Your task to perform on an android device: clear history in the chrome app Image 0: 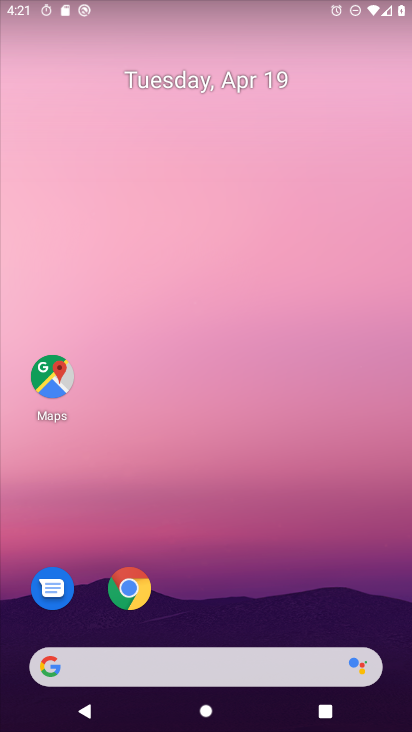
Step 0: click (141, 592)
Your task to perform on an android device: clear history in the chrome app Image 1: 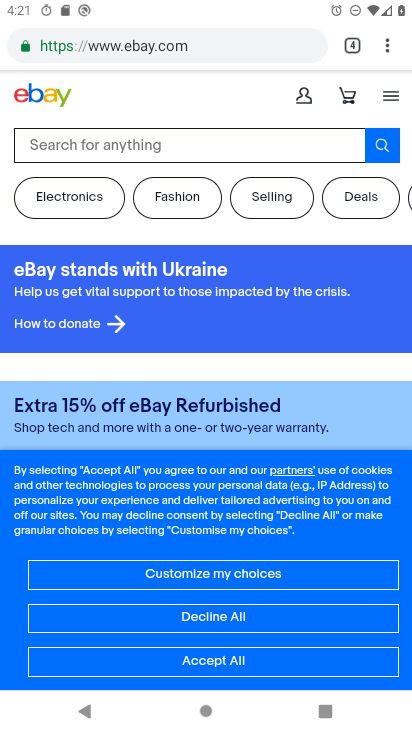
Step 1: click (383, 50)
Your task to perform on an android device: clear history in the chrome app Image 2: 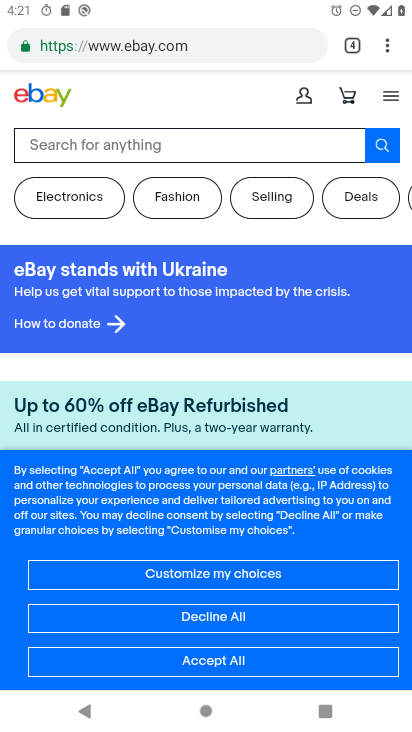
Step 2: click (385, 45)
Your task to perform on an android device: clear history in the chrome app Image 3: 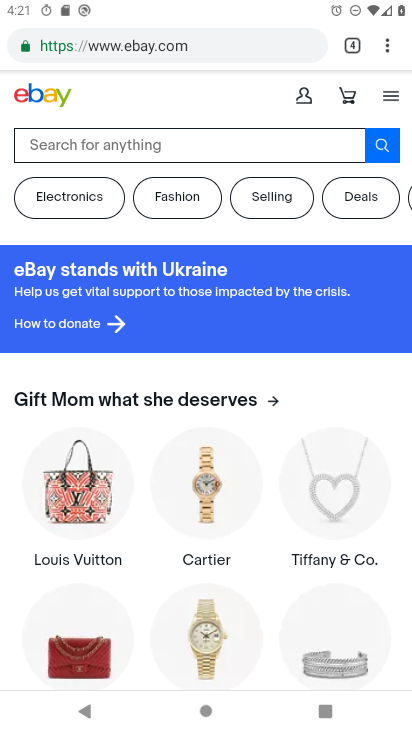
Step 3: click (388, 44)
Your task to perform on an android device: clear history in the chrome app Image 4: 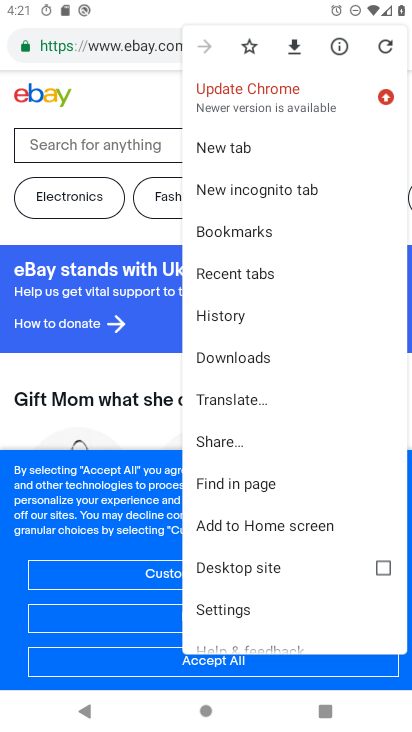
Step 4: click (247, 315)
Your task to perform on an android device: clear history in the chrome app Image 5: 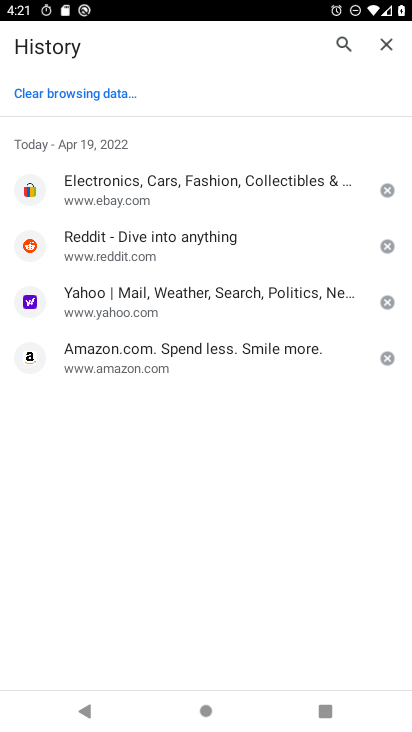
Step 5: click (111, 91)
Your task to perform on an android device: clear history in the chrome app Image 6: 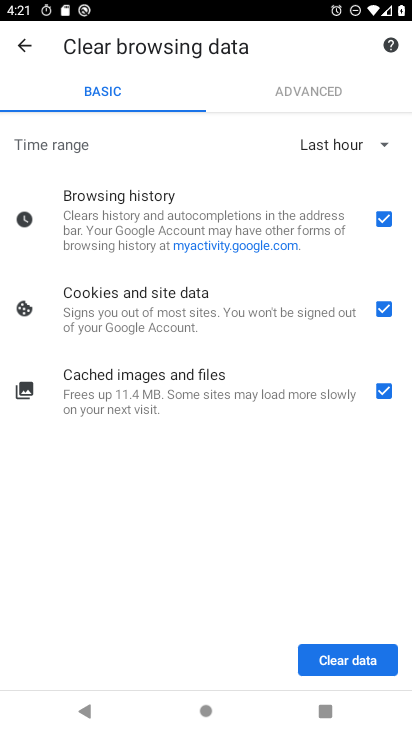
Step 6: click (376, 658)
Your task to perform on an android device: clear history in the chrome app Image 7: 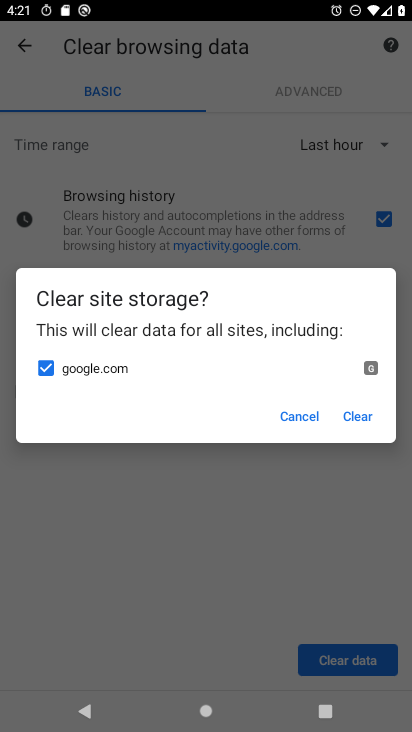
Step 7: click (349, 415)
Your task to perform on an android device: clear history in the chrome app Image 8: 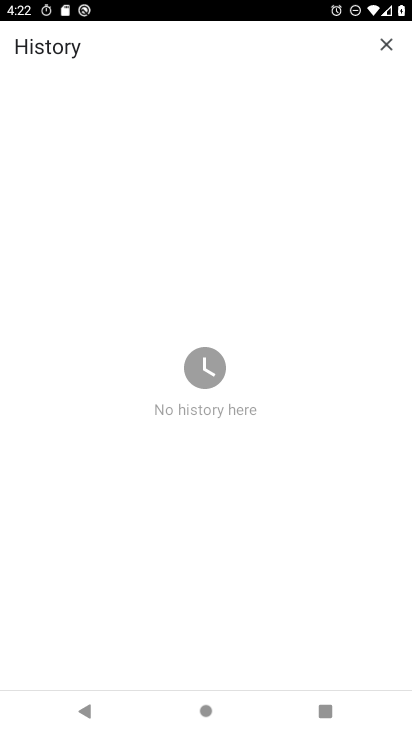
Step 8: task complete